Your task to perform on an android device: Open Google Image 0: 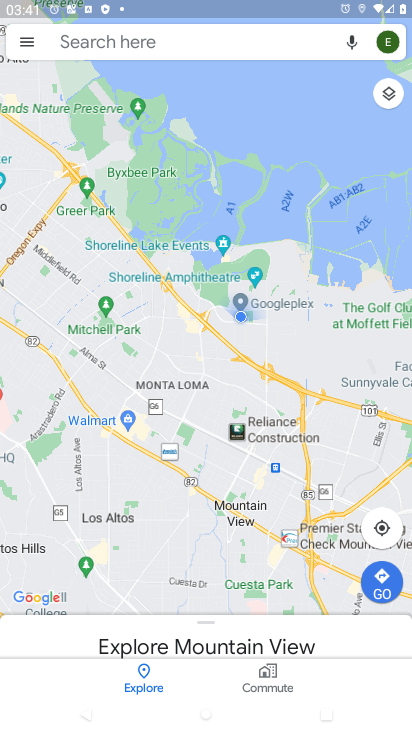
Step 0: press home button
Your task to perform on an android device: Open Google Image 1: 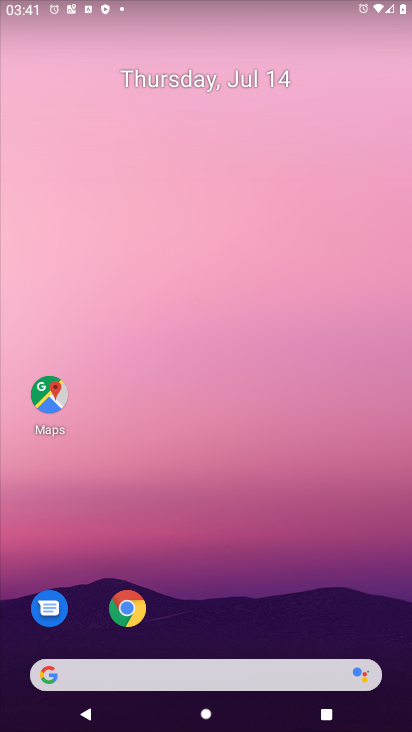
Step 1: click (126, 611)
Your task to perform on an android device: Open Google Image 2: 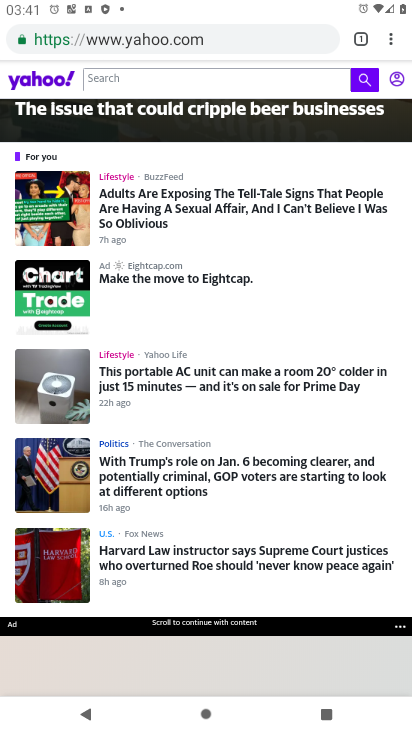
Step 2: task complete